Your task to perform on an android device: toggle wifi Image 0: 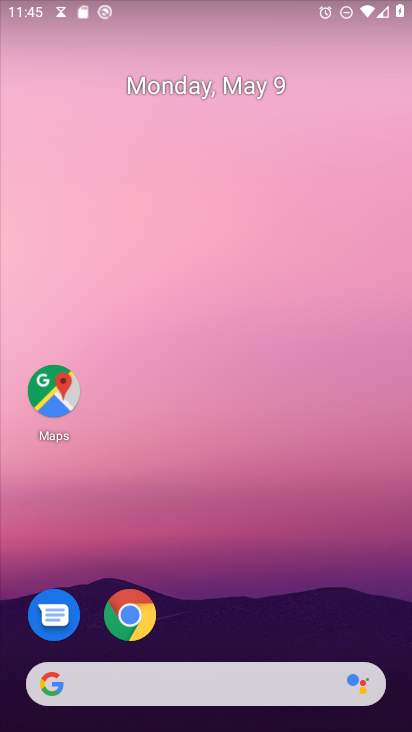
Step 0: drag from (207, 730) to (204, 294)
Your task to perform on an android device: toggle wifi Image 1: 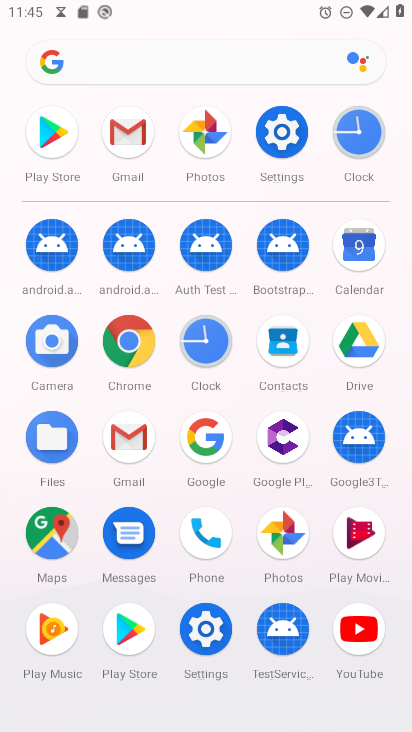
Step 1: click (280, 132)
Your task to perform on an android device: toggle wifi Image 2: 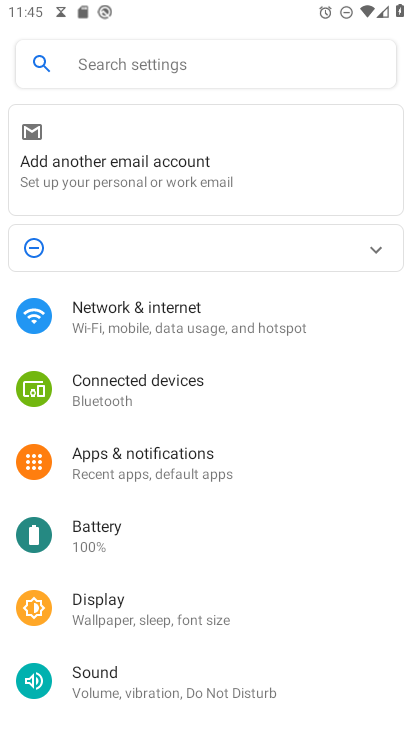
Step 2: click (132, 325)
Your task to perform on an android device: toggle wifi Image 3: 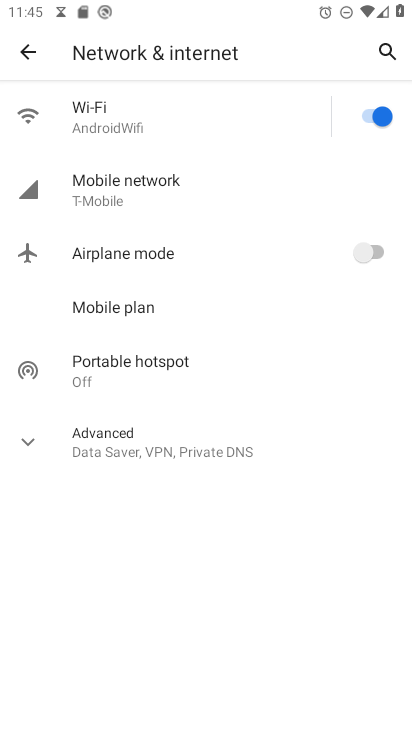
Step 3: click (364, 111)
Your task to perform on an android device: toggle wifi Image 4: 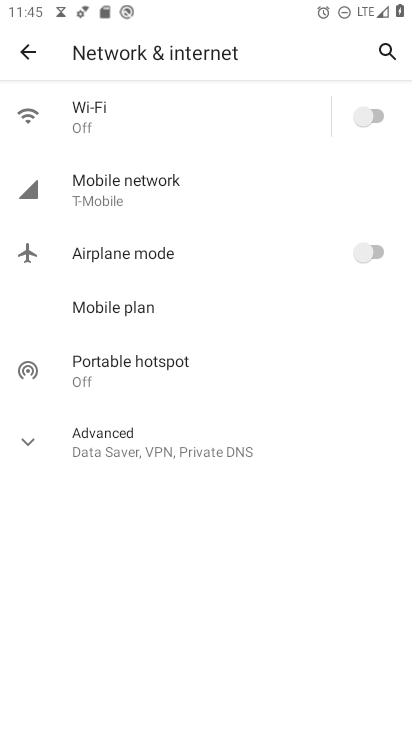
Step 4: task complete